Your task to perform on an android device: Go to settings Image 0: 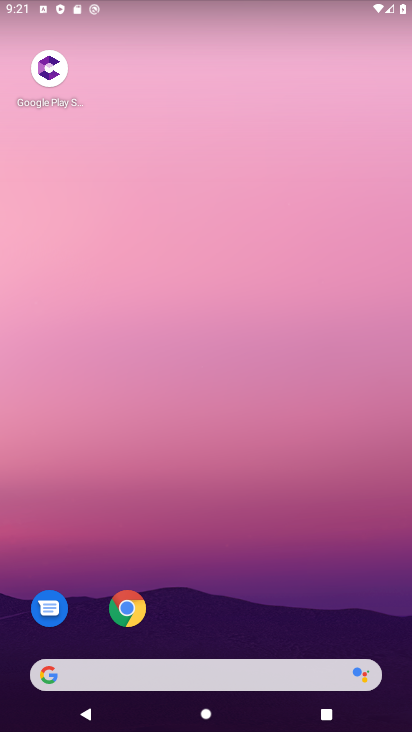
Step 0: drag from (271, 593) to (243, 87)
Your task to perform on an android device: Go to settings Image 1: 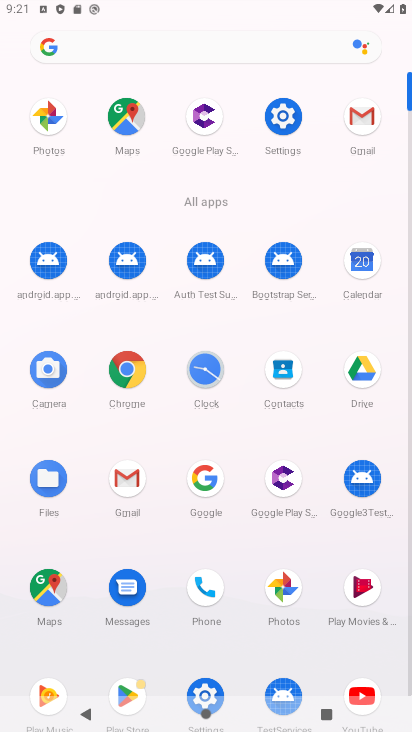
Step 1: drag from (229, 665) to (228, 416)
Your task to perform on an android device: Go to settings Image 2: 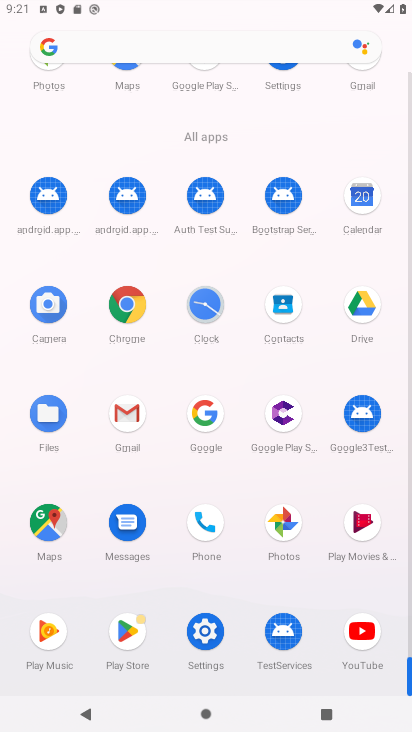
Step 2: click (204, 640)
Your task to perform on an android device: Go to settings Image 3: 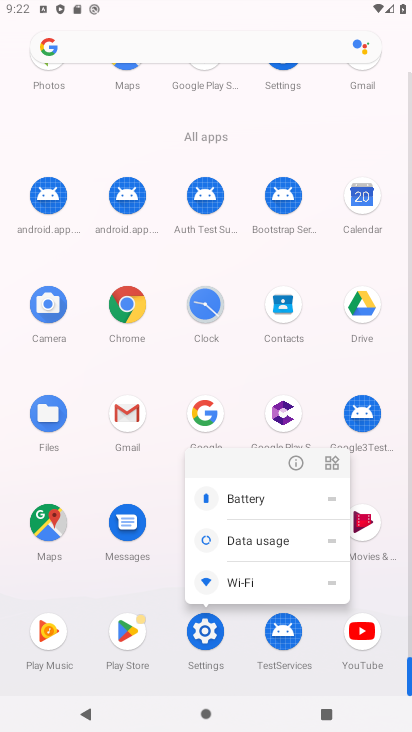
Step 3: click (207, 640)
Your task to perform on an android device: Go to settings Image 4: 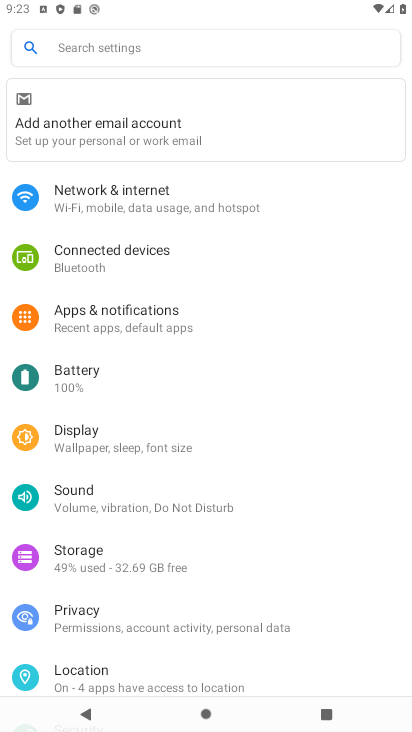
Step 4: task complete